Your task to perform on an android device: Go to calendar. Show me events next week Image 0: 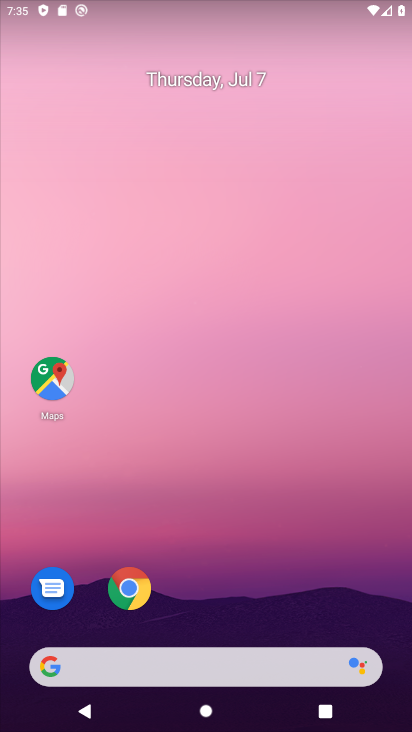
Step 0: drag from (204, 551) to (265, 57)
Your task to perform on an android device: Go to calendar. Show me events next week Image 1: 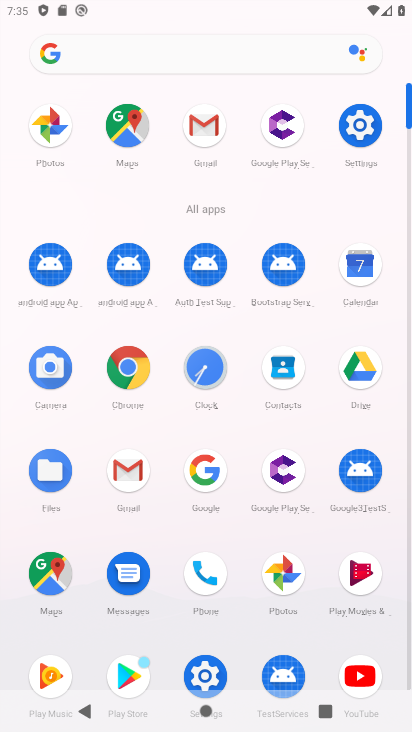
Step 1: click (347, 273)
Your task to perform on an android device: Go to calendar. Show me events next week Image 2: 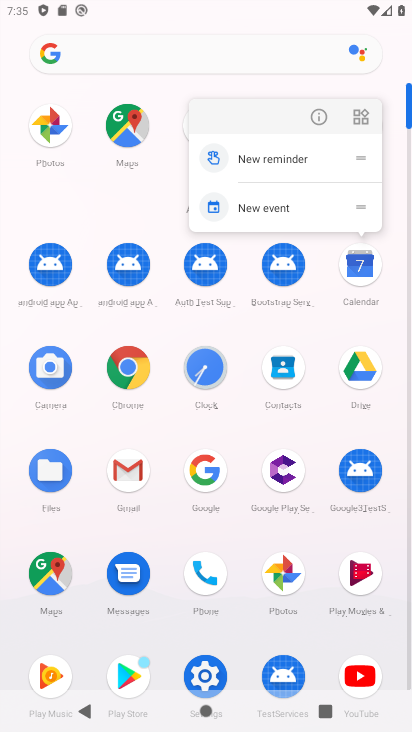
Step 2: click (313, 118)
Your task to perform on an android device: Go to calendar. Show me events next week Image 3: 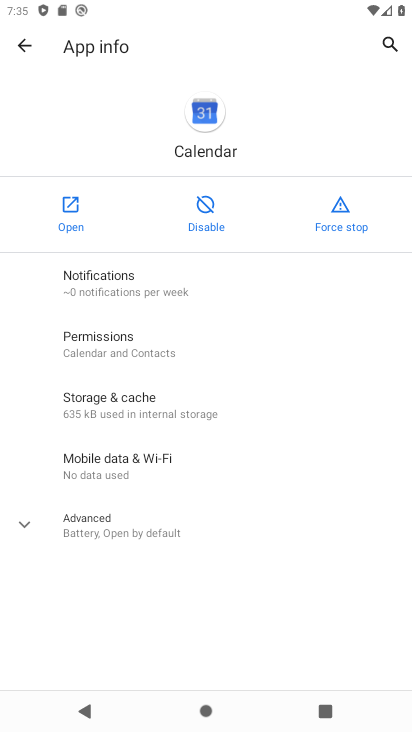
Step 3: click (81, 216)
Your task to perform on an android device: Go to calendar. Show me events next week Image 4: 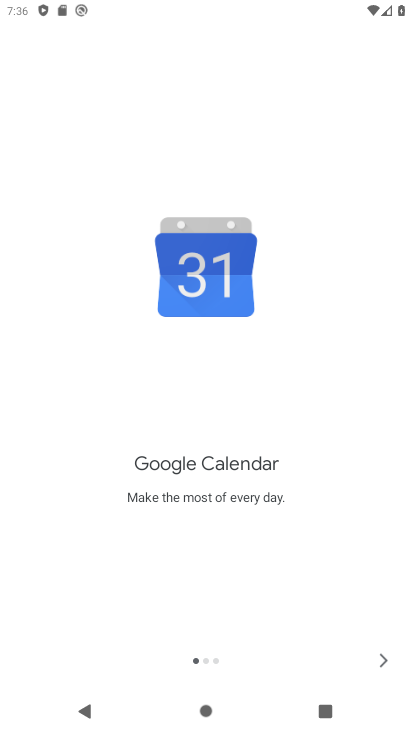
Step 4: click (389, 663)
Your task to perform on an android device: Go to calendar. Show me events next week Image 5: 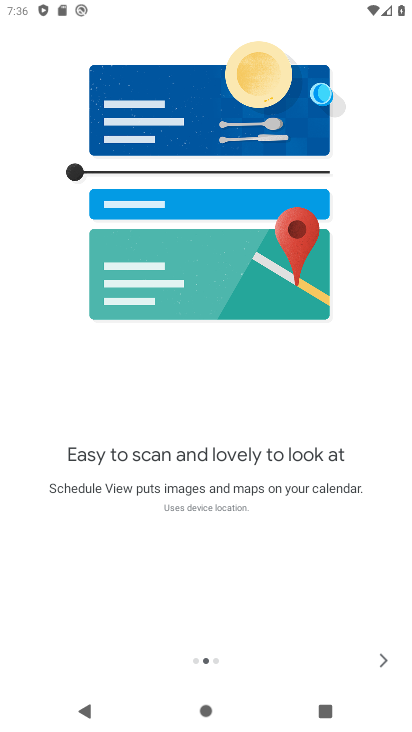
Step 5: click (389, 660)
Your task to perform on an android device: Go to calendar. Show me events next week Image 6: 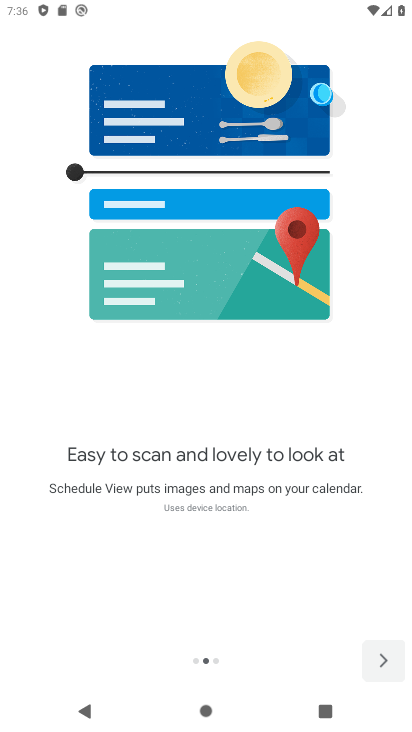
Step 6: click (391, 658)
Your task to perform on an android device: Go to calendar. Show me events next week Image 7: 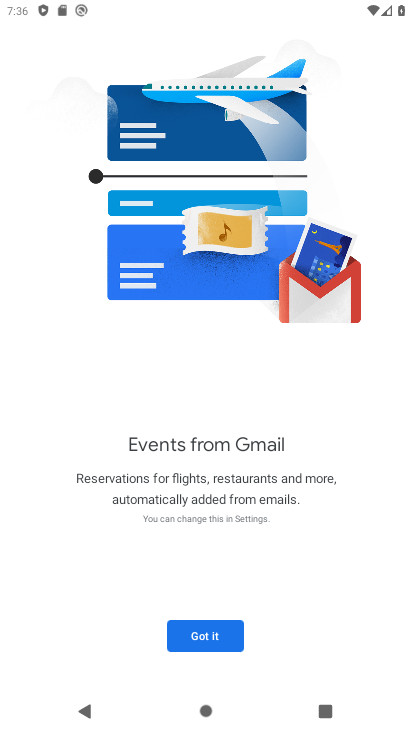
Step 7: click (224, 622)
Your task to perform on an android device: Go to calendar. Show me events next week Image 8: 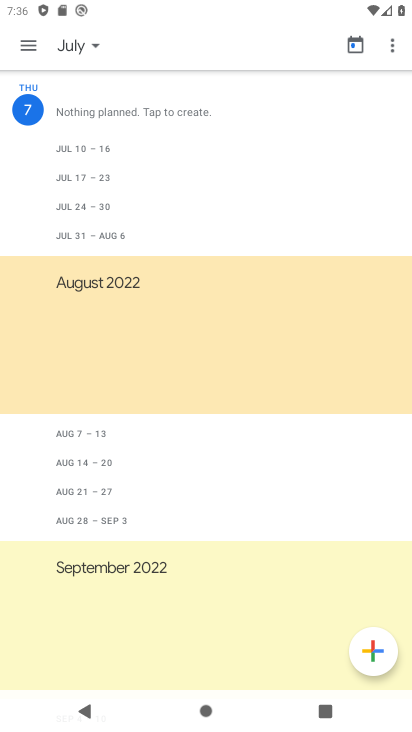
Step 8: click (89, 39)
Your task to perform on an android device: Go to calendar. Show me events next week Image 9: 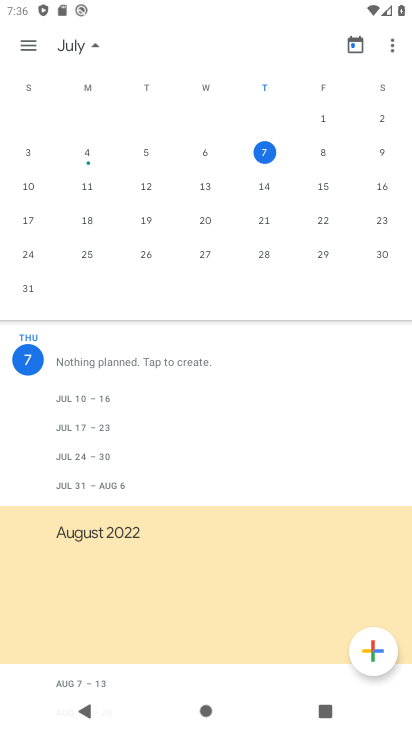
Step 9: click (395, 190)
Your task to perform on an android device: Go to calendar. Show me events next week Image 10: 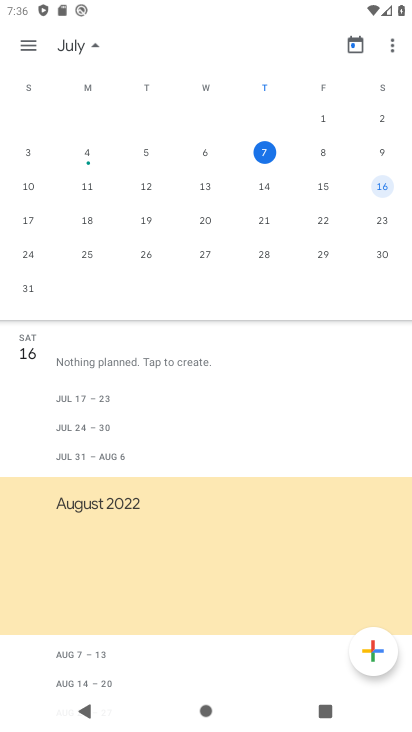
Step 10: task complete